Your task to perform on an android device: Open ESPN.com Image 0: 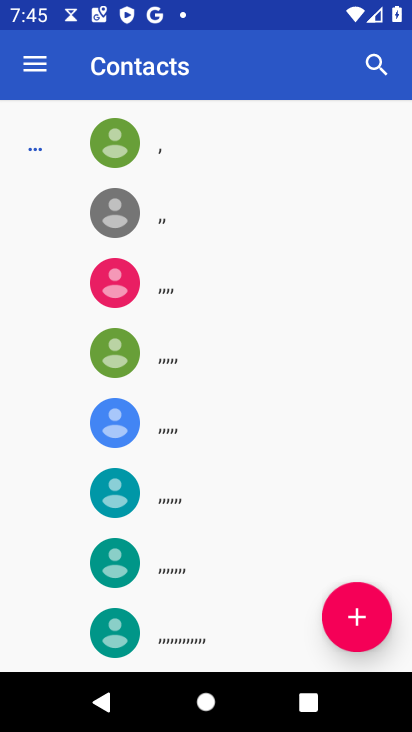
Step 0: press home button
Your task to perform on an android device: Open ESPN.com Image 1: 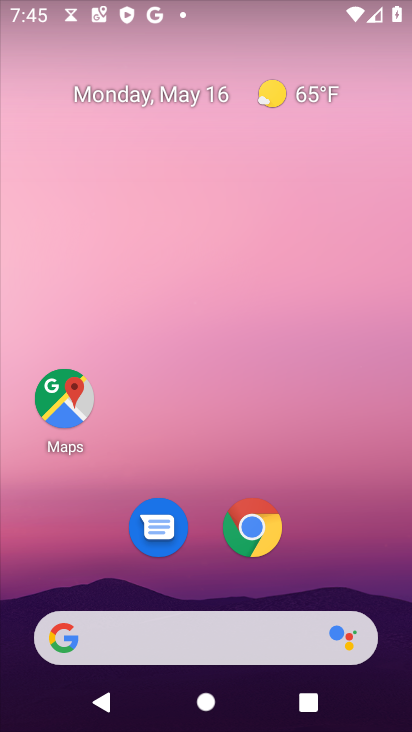
Step 1: drag from (300, 580) to (376, 176)
Your task to perform on an android device: Open ESPN.com Image 2: 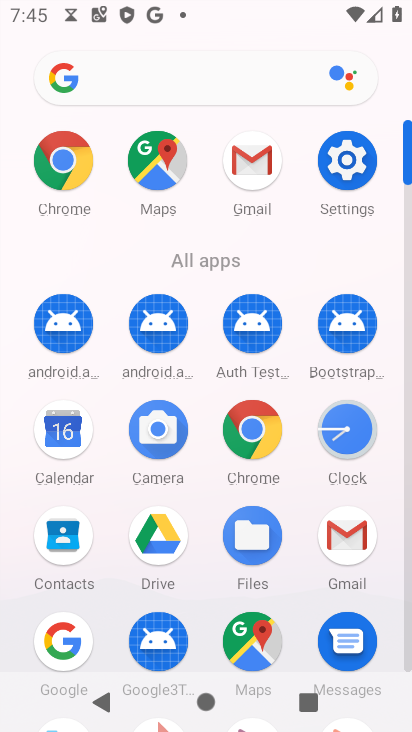
Step 2: click (253, 418)
Your task to perform on an android device: Open ESPN.com Image 3: 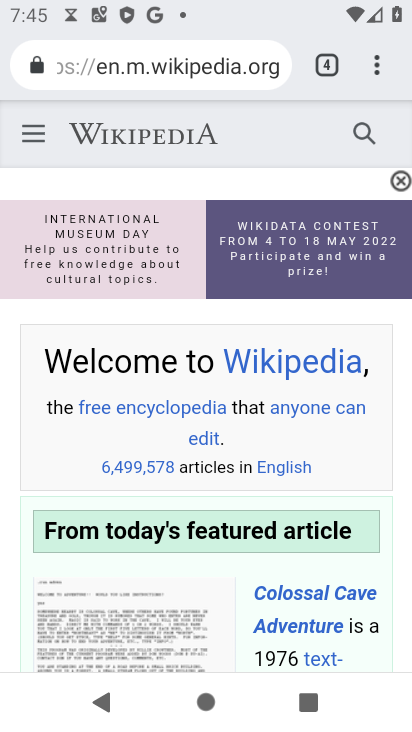
Step 3: click (360, 62)
Your task to perform on an android device: Open ESPN.com Image 4: 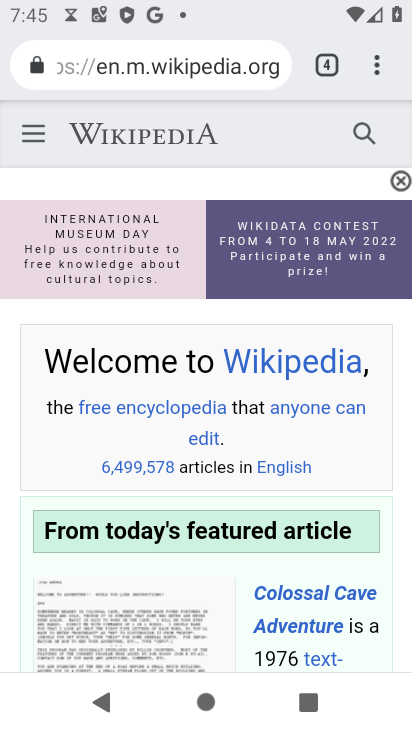
Step 4: click (376, 59)
Your task to perform on an android device: Open ESPN.com Image 5: 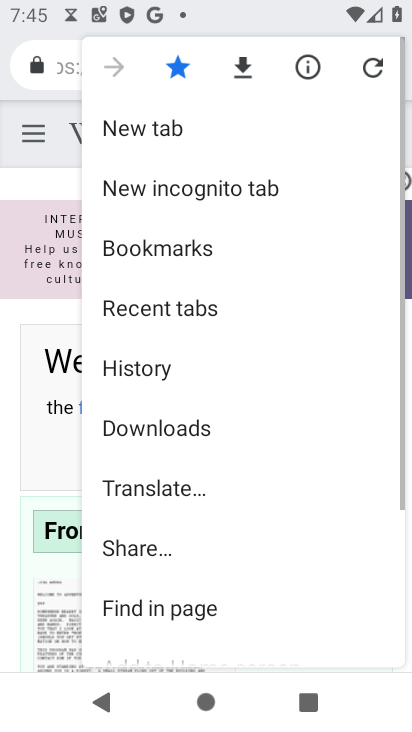
Step 5: click (170, 126)
Your task to perform on an android device: Open ESPN.com Image 6: 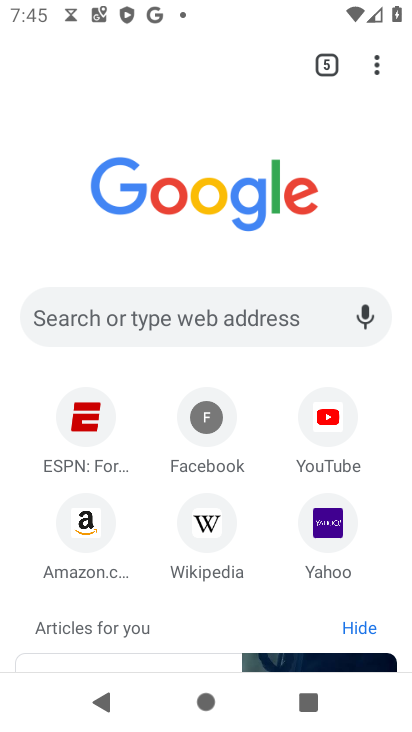
Step 6: click (93, 423)
Your task to perform on an android device: Open ESPN.com Image 7: 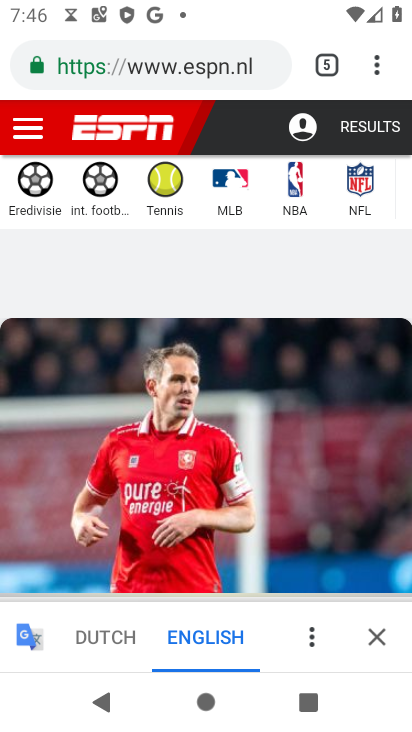
Step 7: task complete